Your task to perform on an android device: Open Chrome and go to settings Image 0: 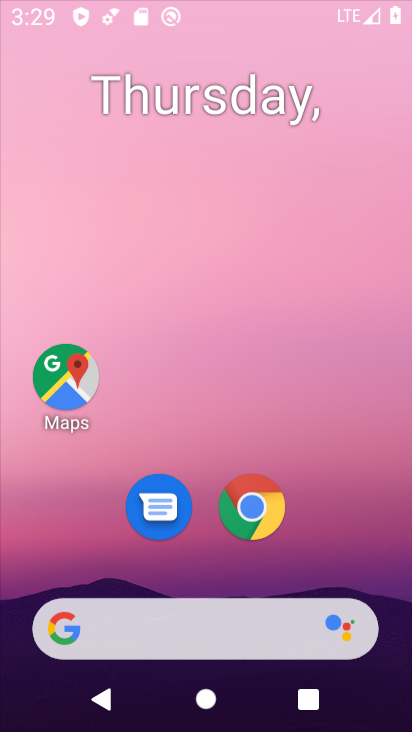
Step 0: press home button
Your task to perform on an android device: Open Chrome and go to settings Image 1: 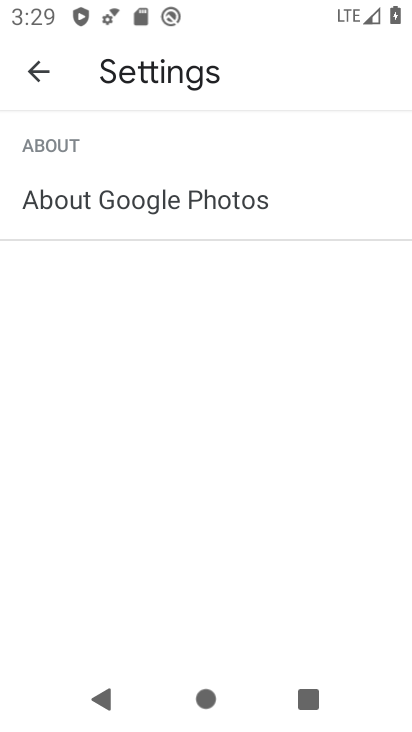
Step 1: click (326, 159)
Your task to perform on an android device: Open Chrome and go to settings Image 2: 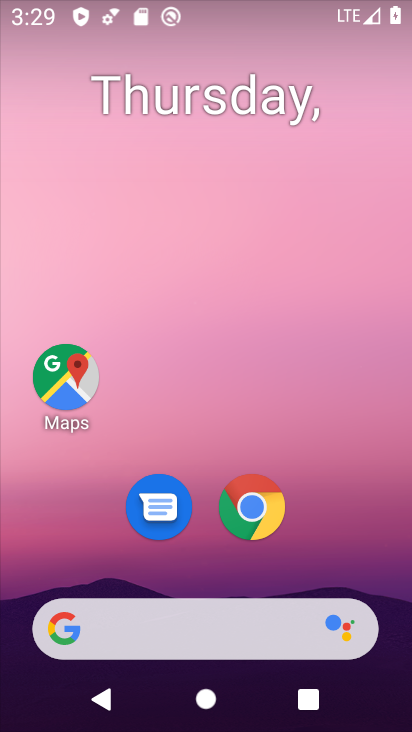
Step 2: click (266, 523)
Your task to perform on an android device: Open Chrome and go to settings Image 3: 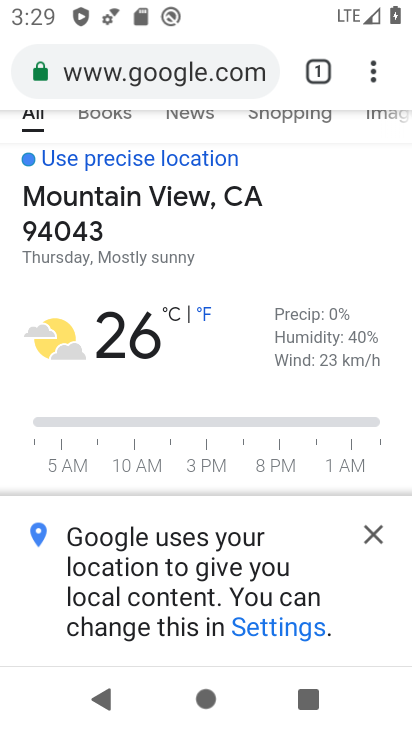
Step 3: task complete